Your task to perform on an android device: Search for seafood restaurants on Google Maps Image 0: 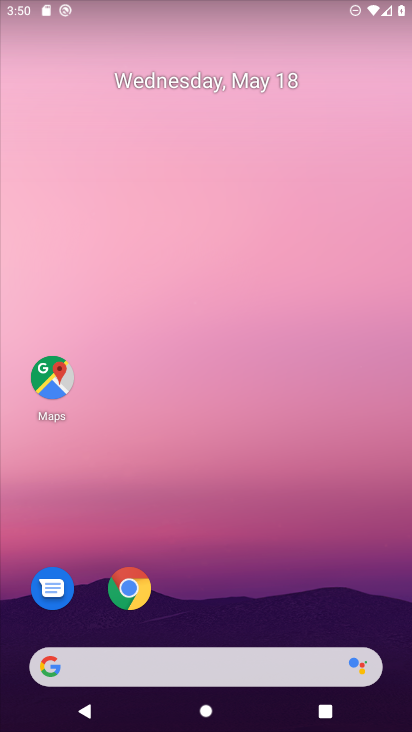
Step 0: click (65, 383)
Your task to perform on an android device: Search for seafood restaurants on Google Maps Image 1: 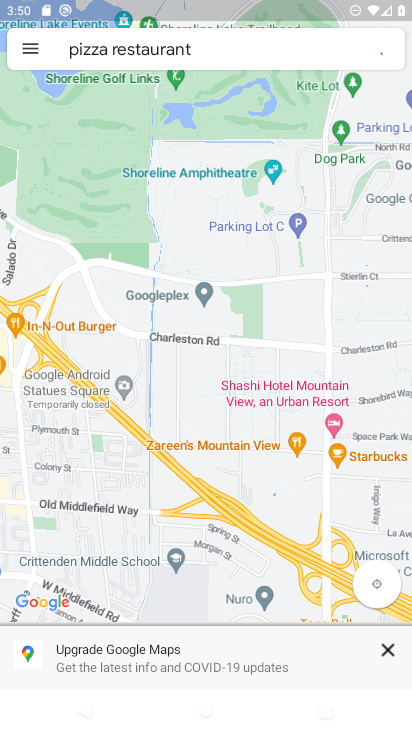
Step 1: click (257, 36)
Your task to perform on an android device: Search for seafood restaurants on Google Maps Image 2: 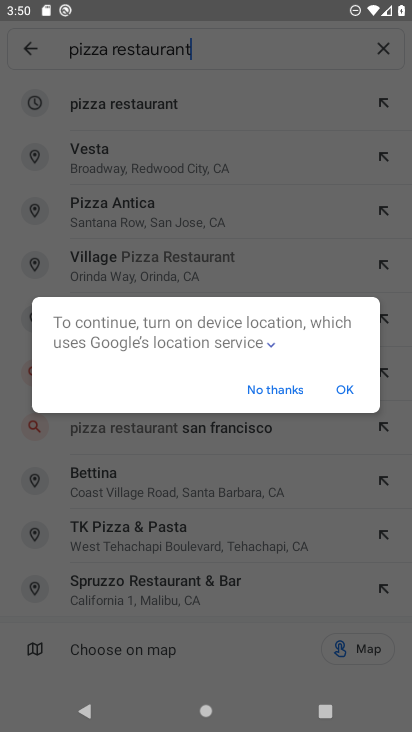
Step 2: click (340, 392)
Your task to perform on an android device: Search for seafood restaurants on Google Maps Image 3: 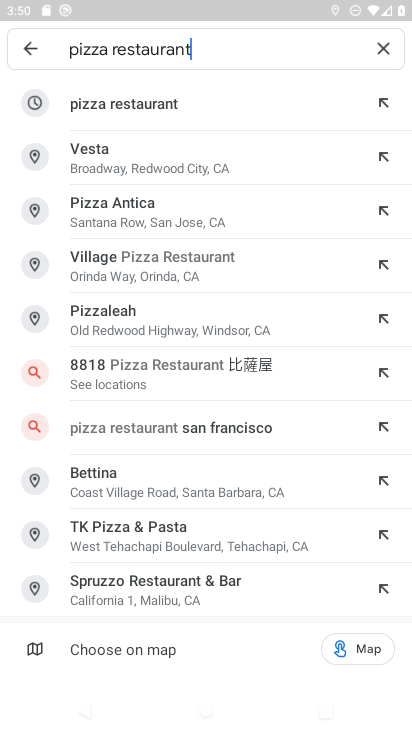
Step 3: click (377, 50)
Your task to perform on an android device: Search for seafood restaurants on Google Maps Image 4: 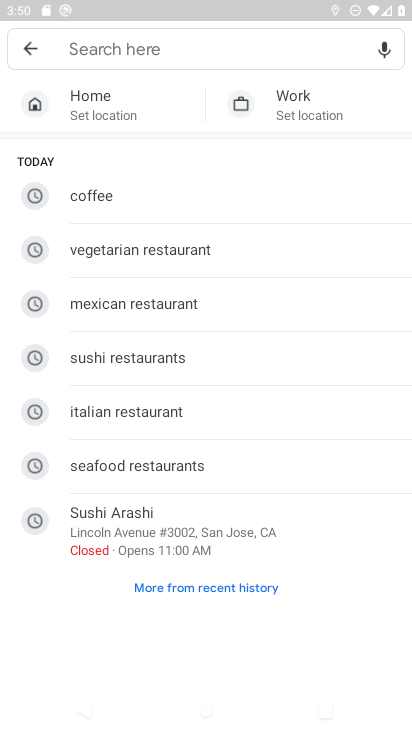
Step 4: type "seafood.com"
Your task to perform on an android device: Search for seafood restaurants on Google Maps Image 5: 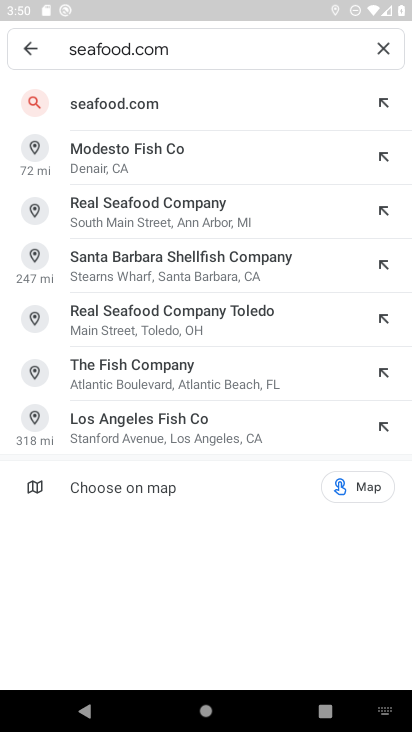
Step 5: click (186, 119)
Your task to perform on an android device: Search for seafood restaurants on Google Maps Image 6: 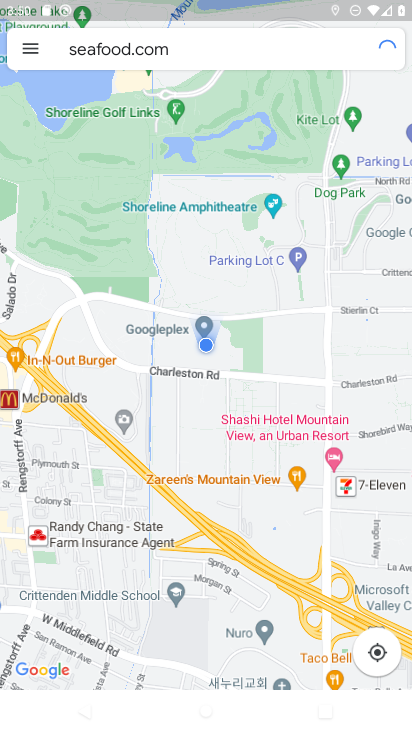
Step 6: task complete